Your task to perform on an android device: Do I have any events tomorrow? Image 0: 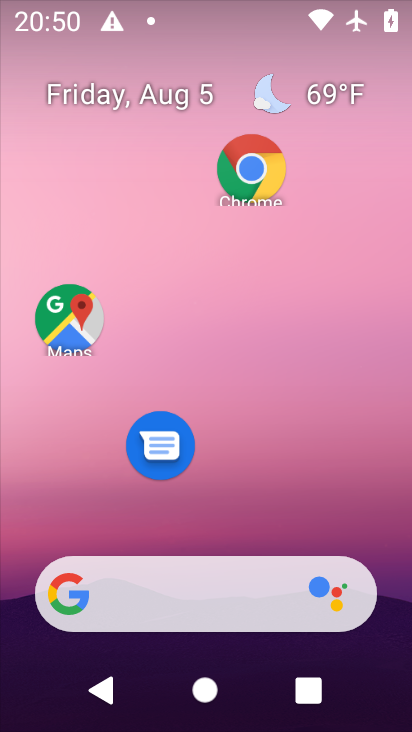
Step 0: drag from (228, 455) to (195, 106)
Your task to perform on an android device: Do I have any events tomorrow? Image 1: 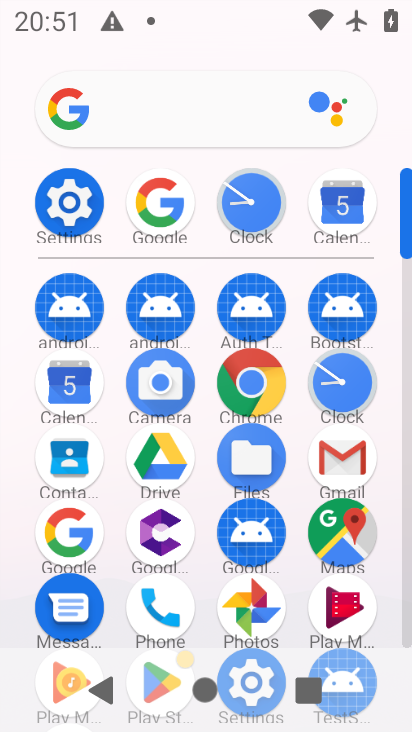
Step 1: click (326, 214)
Your task to perform on an android device: Do I have any events tomorrow? Image 2: 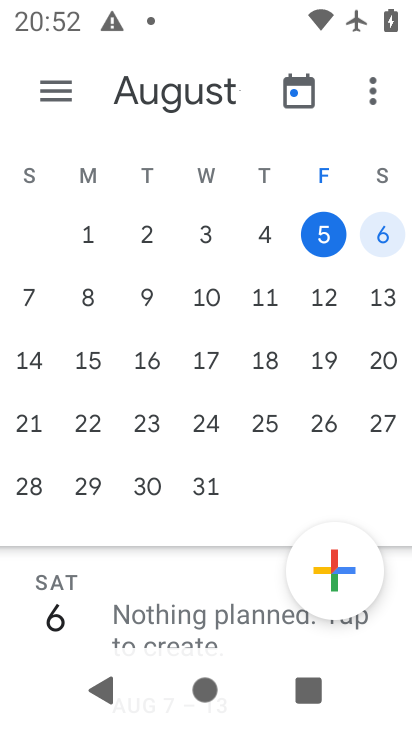
Step 2: click (359, 243)
Your task to perform on an android device: Do I have any events tomorrow? Image 3: 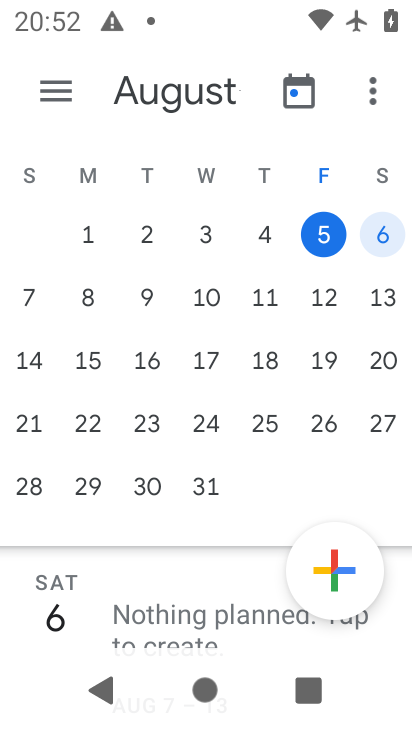
Step 3: task complete